Your task to perform on an android device: turn off location history Image 0: 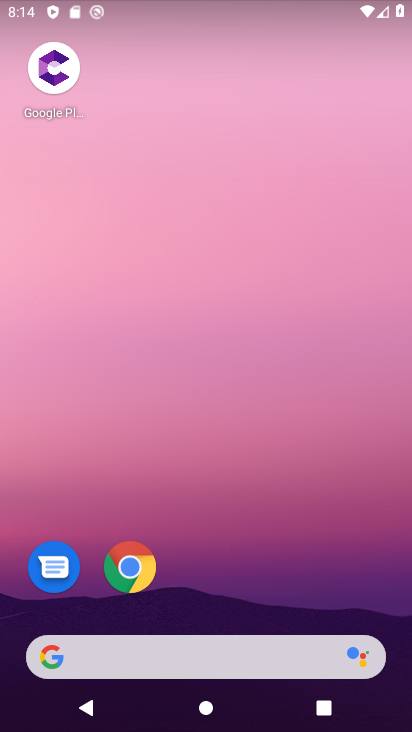
Step 0: drag from (229, 532) to (285, 0)
Your task to perform on an android device: turn off location history Image 1: 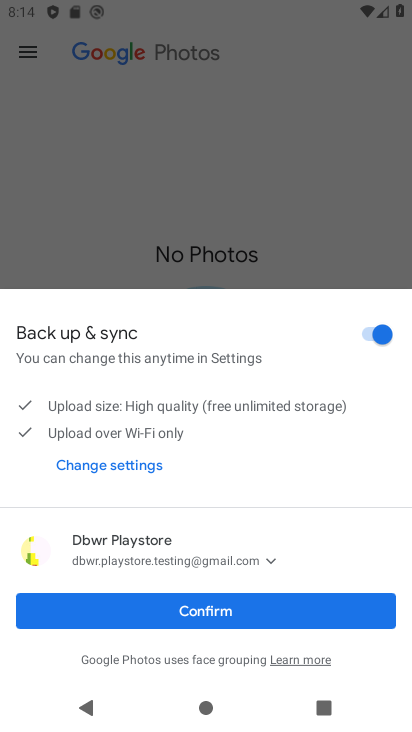
Step 1: press home button
Your task to perform on an android device: turn off location history Image 2: 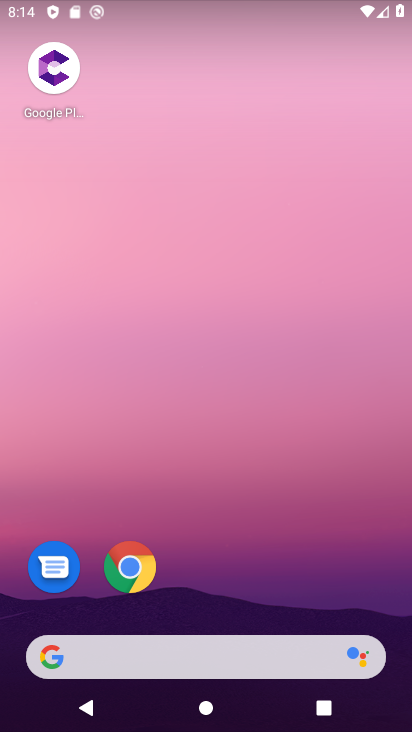
Step 2: drag from (240, 568) to (229, 3)
Your task to perform on an android device: turn off location history Image 3: 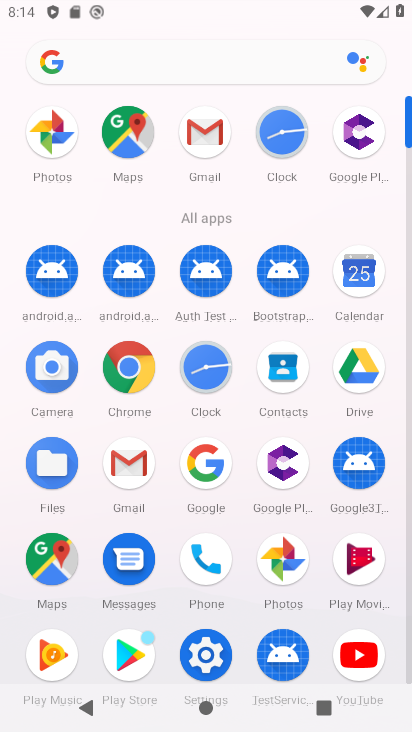
Step 3: click (203, 647)
Your task to perform on an android device: turn off location history Image 4: 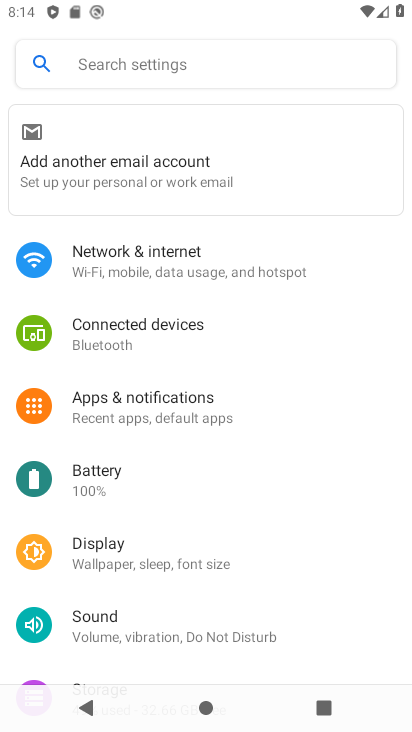
Step 4: drag from (227, 507) to (249, 191)
Your task to perform on an android device: turn off location history Image 5: 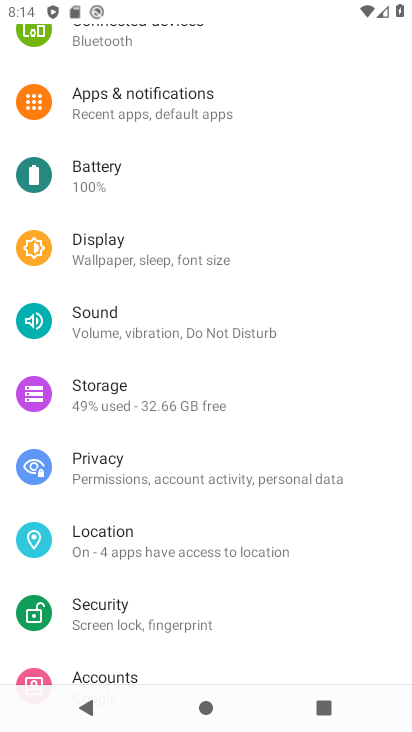
Step 5: click (173, 546)
Your task to perform on an android device: turn off location history Image 6: 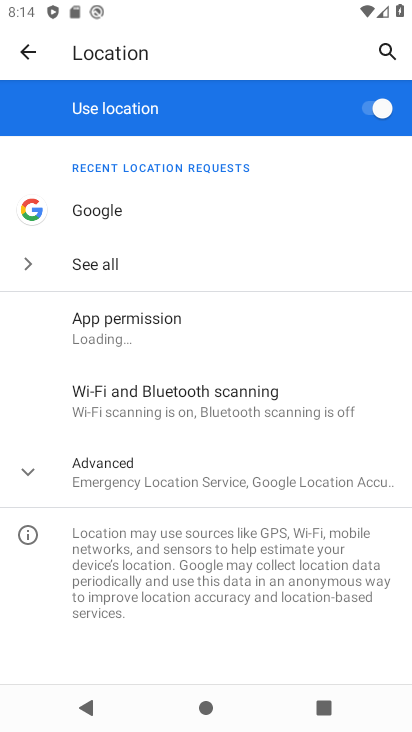
Step 6: click (27, 471)
Your task to perform on an android device: turn off location history Image 7: 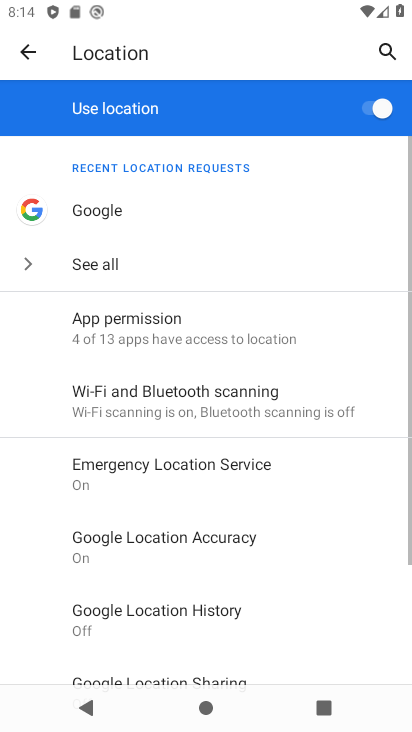
Step 7: click (137, 614)
Your task to perform on an android device: turn off location history Image 8: 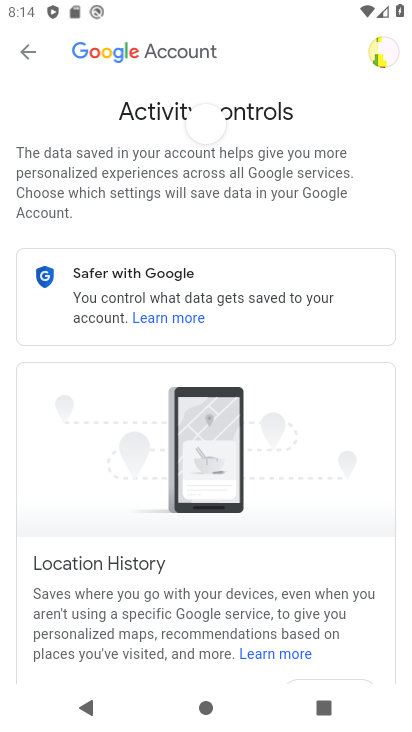
Step 8: drag from (286, 521) to (321, 210)
Your task to perform on an android device: turn off location history Image 9: 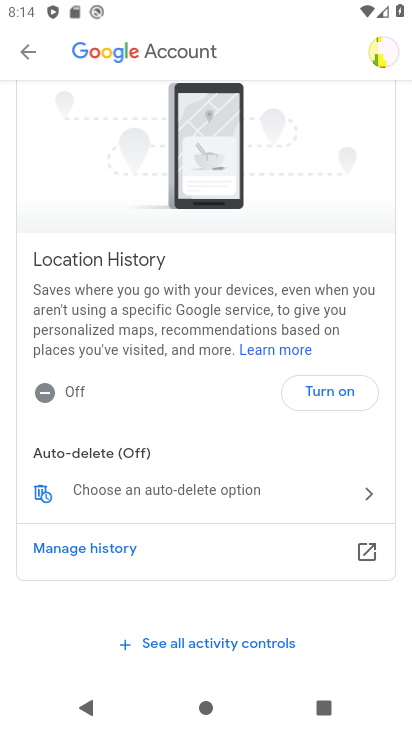
Step 9: click (329, 385)
Your task to perform on an android device: turn off location history Image 10: 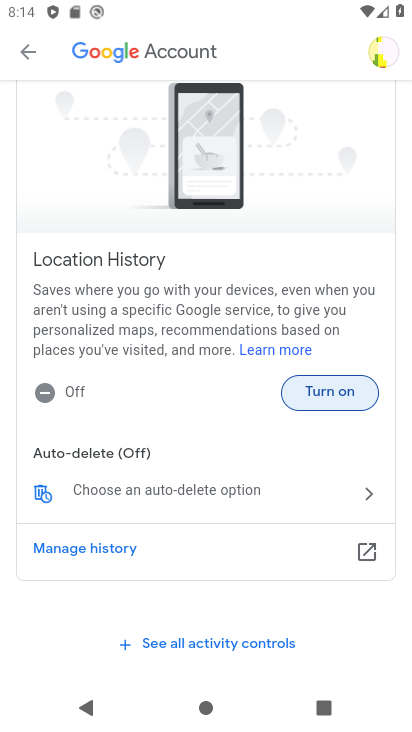
Step 10: click (329, 383)
Your task to perform on an android device: turn off location history Image 11: 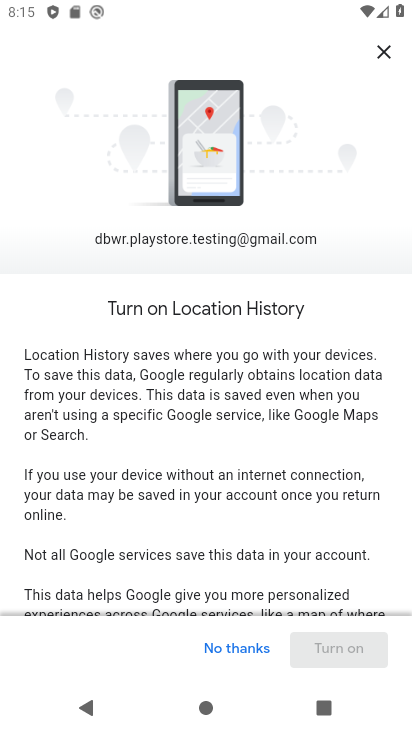
Step 11: drag from (304, 527) to (327, 86)
Your task to perform on an android device: turn off location history Image 12: 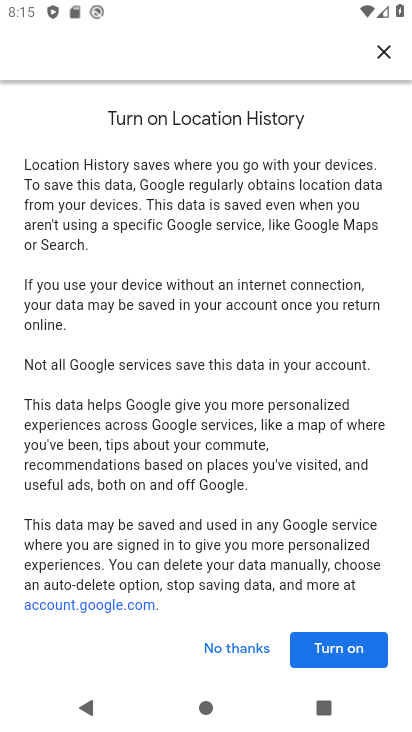
Step 12: click (365, 647)
Your task to perform on an android device: turn off location history Image 13: 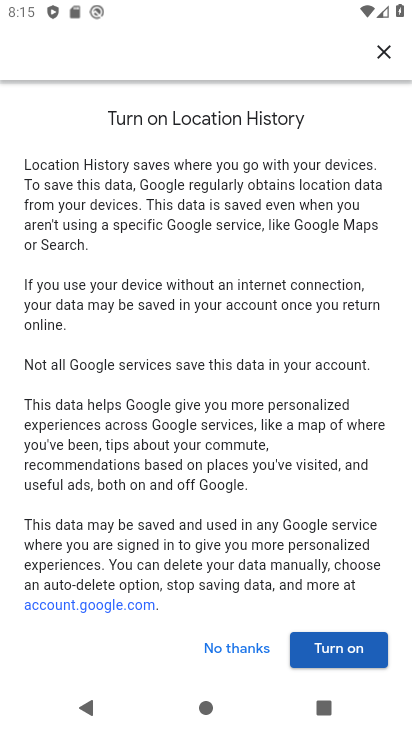
Step 13: click (365, 644)
Your task to perform on an android device: turn off location history Image 14: 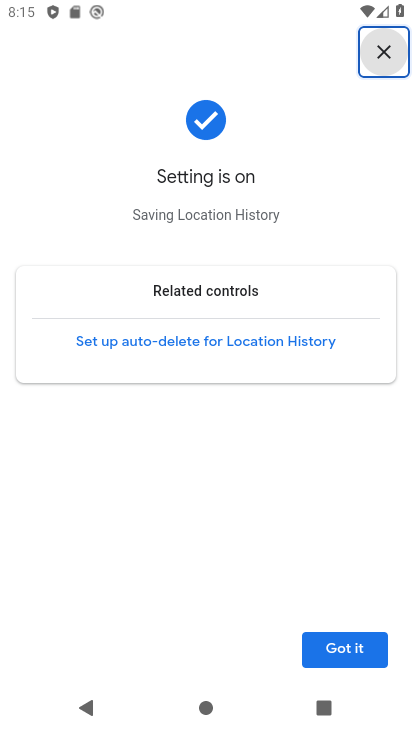
Step 14: click (365, 644)
Your task to perform on an android device: turn off location history Image 15: 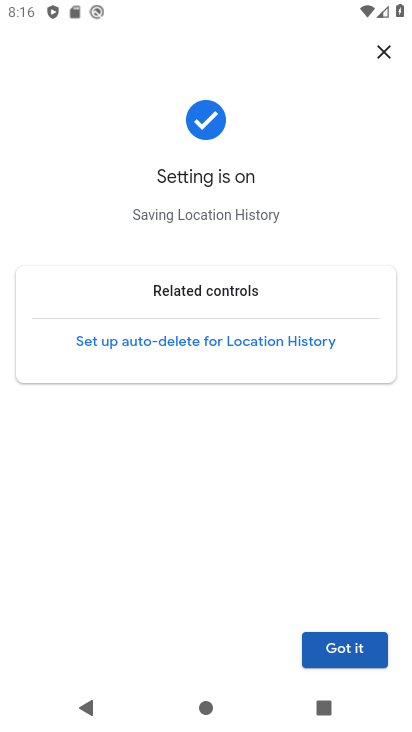
Step 15: click (363, 648)
Your task to perform on an android device: turn off location history Image 16: 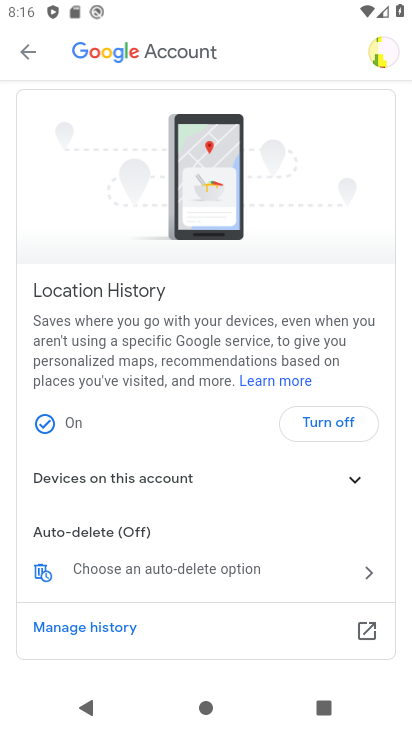
Step 16: task complete